Your task to perform on an android device: toggle data saver in the chrome app Image 0: 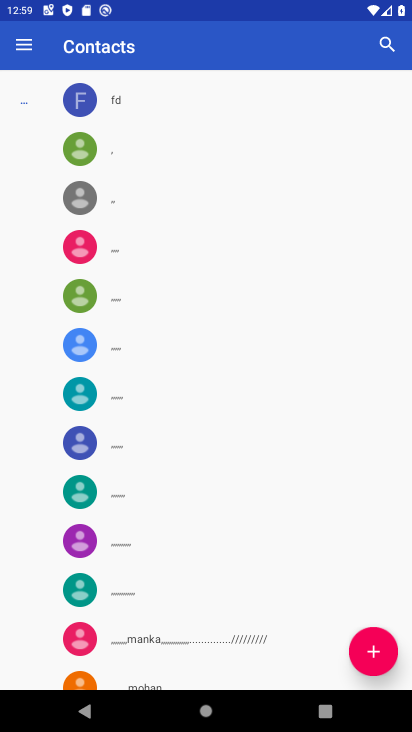
Step 0: press home button
Your task to perform on an android device: toggle data saver in the chrome app Image 1: 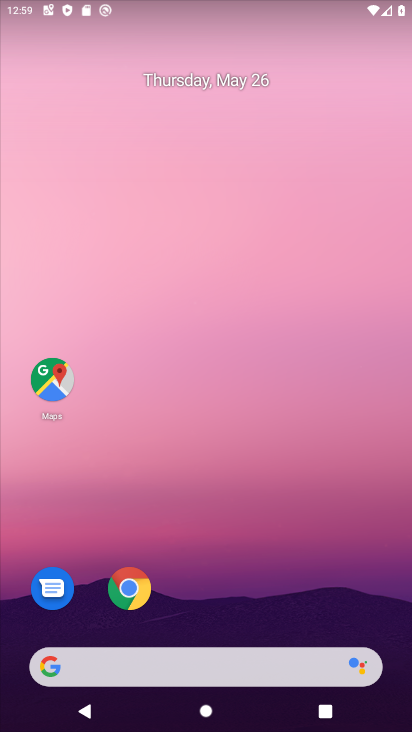
Step 1: click (129, 587)
Your task to perform on an android device: toggle data saver in the chrome app Image 2: 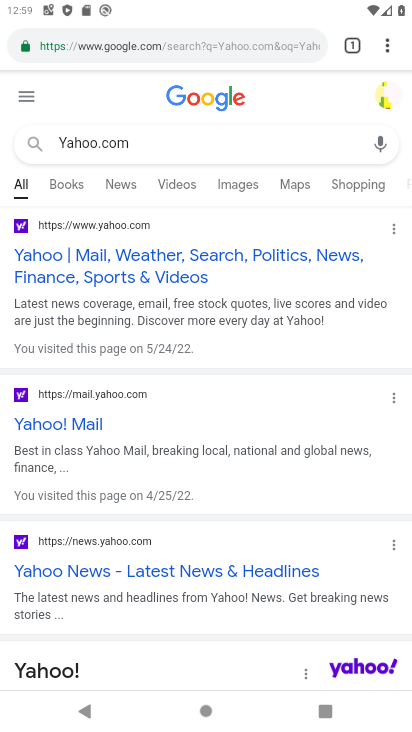
Step 2: click (313, 46)
Your task to perform on an android device: toggle data saver in the chrome app Image 3: 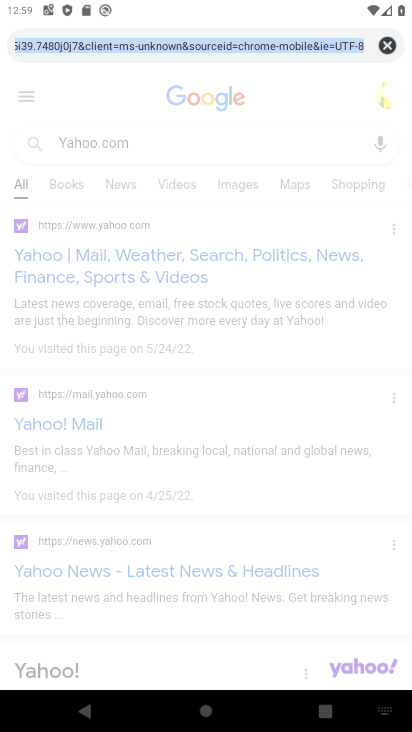
Step 3: press back button
Your task to perform on an android device: toggle data saver in the chrome app Image 4: 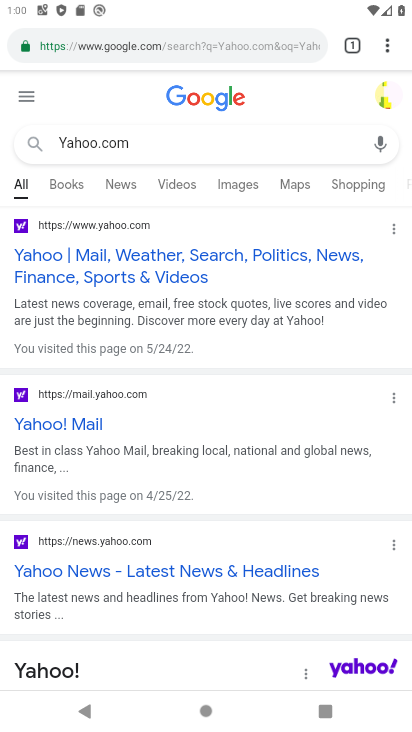
Step 4: click (382, 45)
Your task to perform on an android device: toggle data saver in the chrome app Image 5: 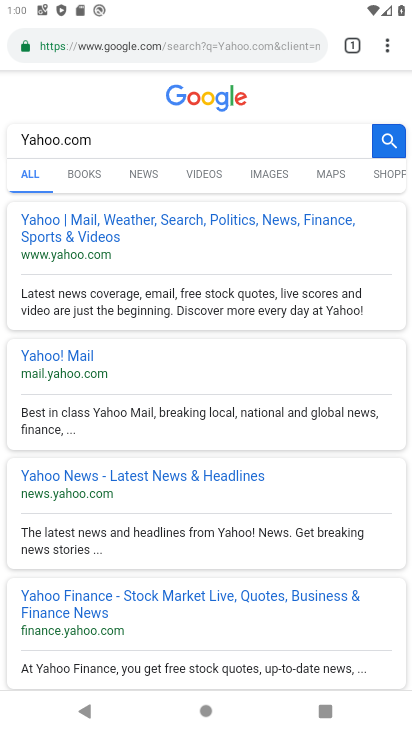
Step 5: click (385, 44)
Your task to perform on an android device: toggle data saver in the chrome app Image 6: 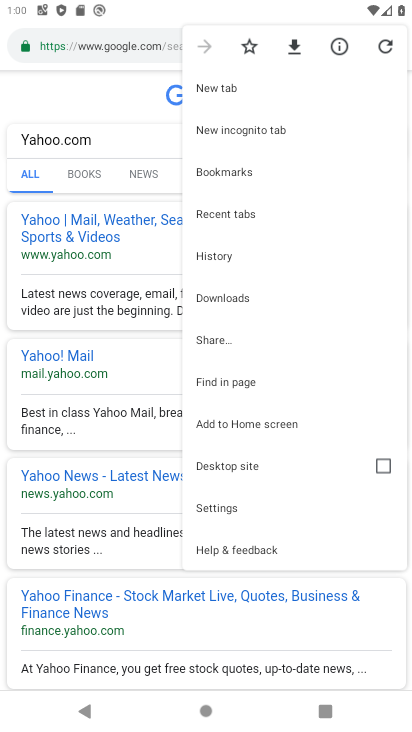
Step 6: click (231, 500)
Your task to perform on an android device: toggle data saver in the chrome app Image 7: 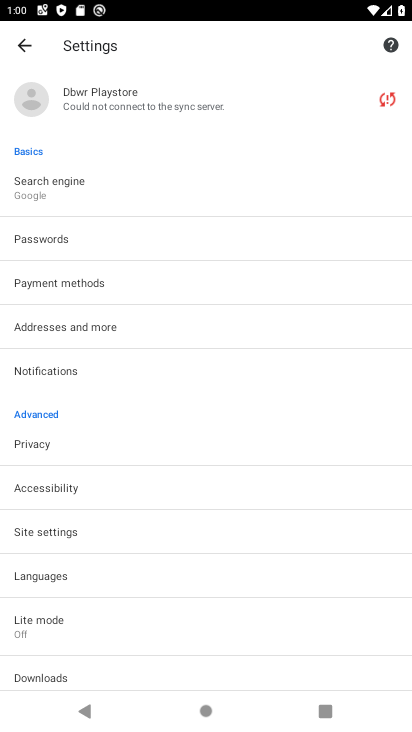
Step 7: click (51, 612)
Your task to perform on an android device: toggle data saver in the chrome app Image 8: 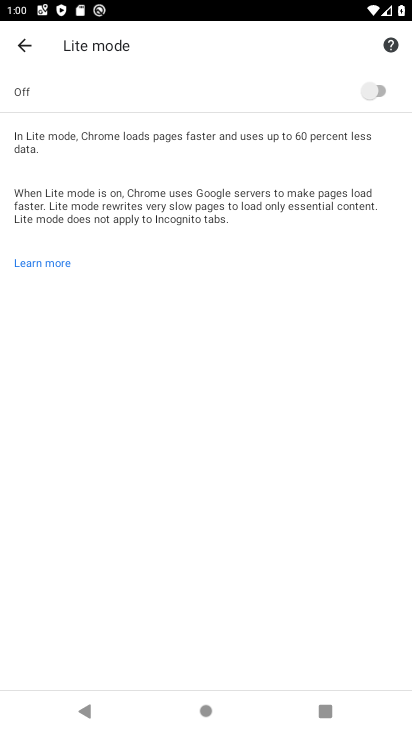
Step 8: click (384, 89)
Your task to perform on an android device: toggle data saver in the chrome app Image 9: 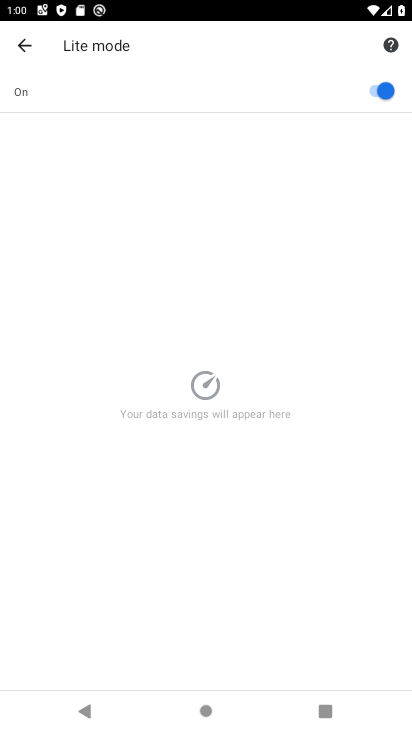
Step 9: task complete